Your task to perform on an android device: Show the shopping cart on bestbuy. Add "rayovac triple a" to the cart on bestbuy Image 0: 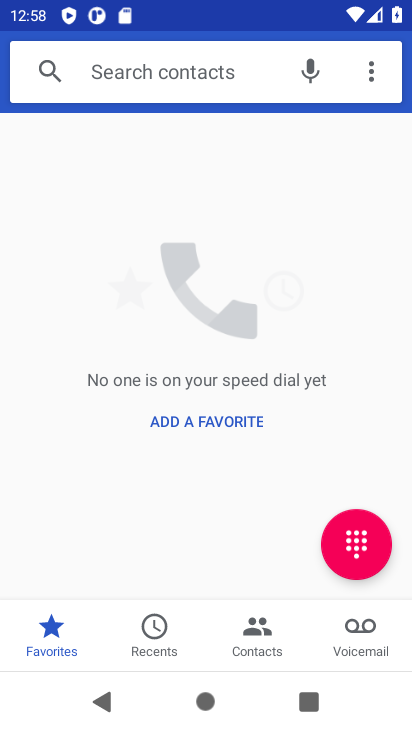
Step 0: press home button
Your task to perform on an android device: Show the shopping cart on bestbuy. Add "rayovac triple a" to the cart on bestbuy Image 1: 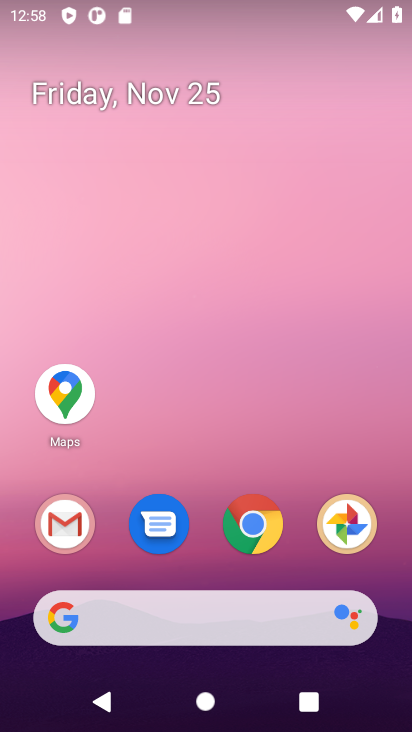
Step 1: click (258, 524)
Your task to perform on an android device: Show the shopping cart on bestbuy. Add "rayovac triple a" to the cart on bestbuy Image 2: 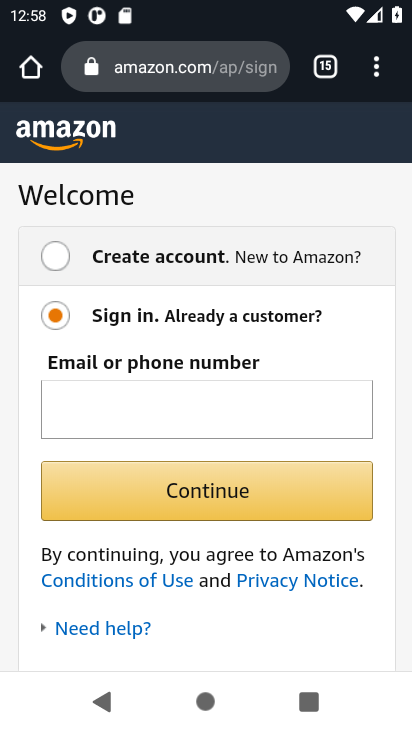
Step 2: click (155, 64)
Your task to perform on an android device: Show the shopping cart on bestbuy. Add "rayovac triple a" to the cart on bestbuy Image 3: 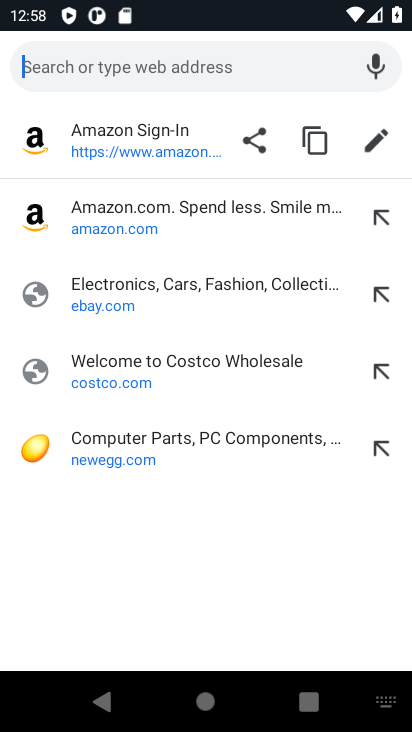
Step 3: type "bestbuy.com"
Your task to perform on an android device: Show the shopping cart on bestbuy. Add "rayovac triple a" to the cart on bestbuy Image 4: 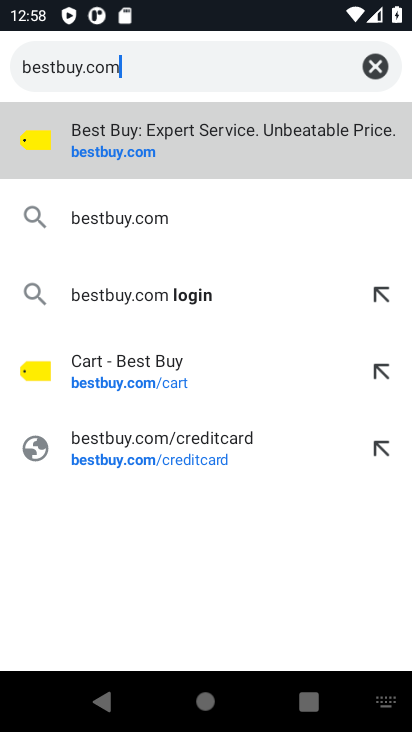
Step 4: click (108, 153)
Your task to perform on an android device: Show the shopping cart on bestbuy. Add "rayovac triple a" to the cart on bestbuy Image 5: 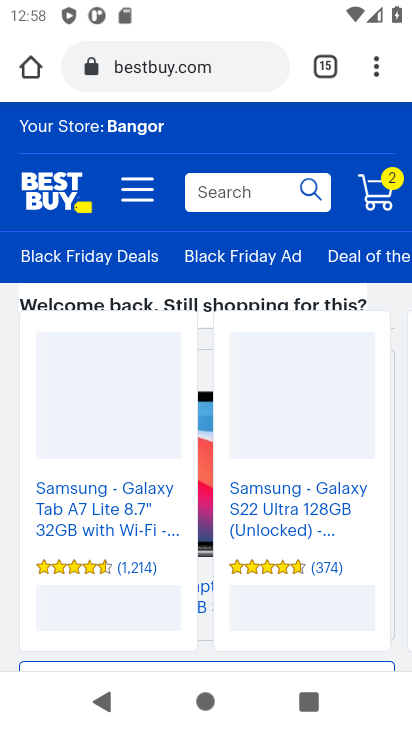
Step 5: click (381, 190)
Your task to perform on an android device: Show the shopping cart on bestbuy. Add "rayovac triple a" to the cart on bestbuy Image 6: 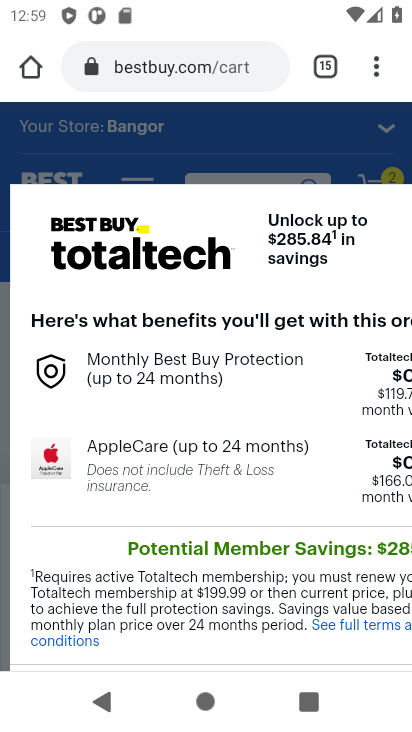
Step 6: drag from (352, 290) to (256, 291)
Your task to perform on an android device: Show the shopping cart on bestbuy. Add "rayovac triple a" to the cart on bestbuy Image 7: 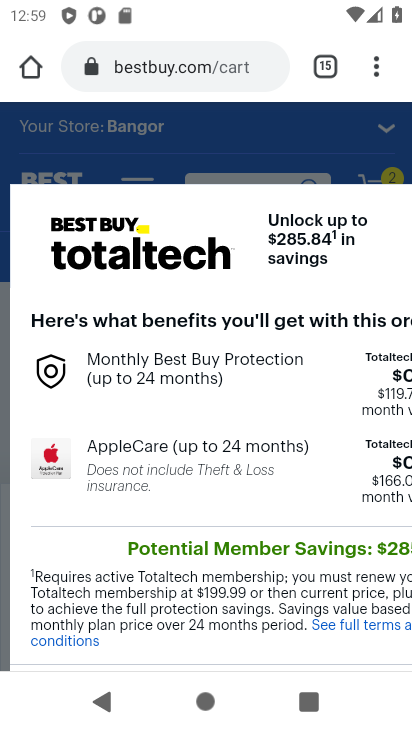
Step 7: click (323, 154)
Your task to perform on an android device: Show the shopping cart on bestbuy. Add "rayovac triple a" to the cart on bestbuy Image 8: 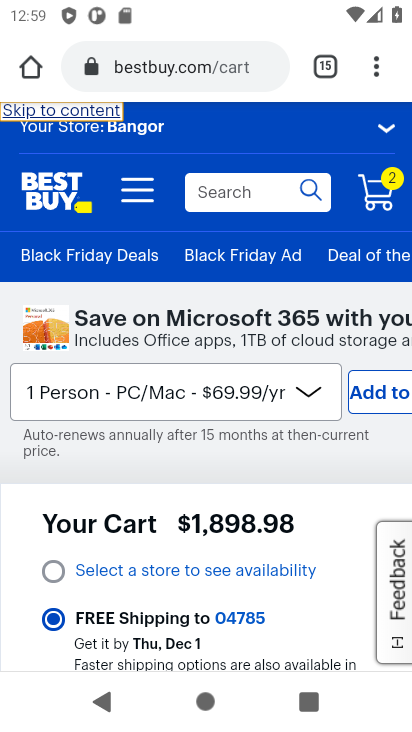
Step 8: drag from (281, 455) to (286, 280)
Your task to perform on an android device: Show the shopping cart on bestbuy. Add "rayovac triple a" to the cart on bestbuy Image 9: 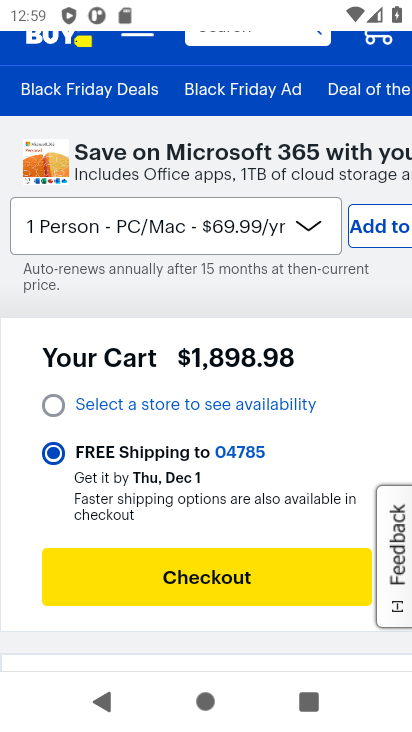
Step 9: drag from (321, 349) to (319, 504)
Your task to perform on an android device: Show the shopping cart on bestbuy. Add "rayovac triple a" to the cart on bestbuy Image 10: 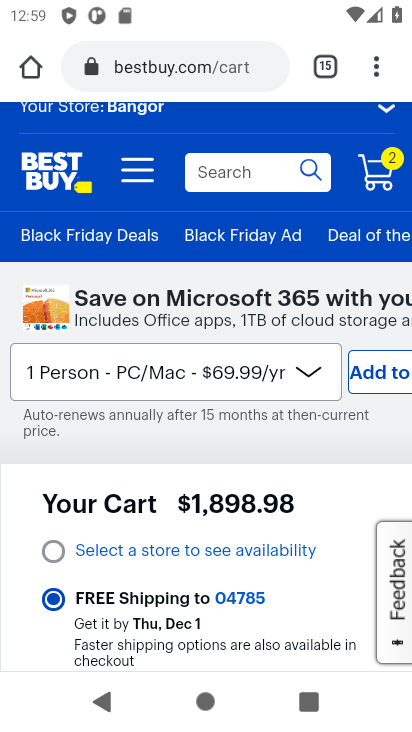
Step 10: click (211, 172)
Your task to perform on an android device: Show the shopping cart on bestbuy. Add "rayovac triple a" to the cart on bestbuy Image 11: 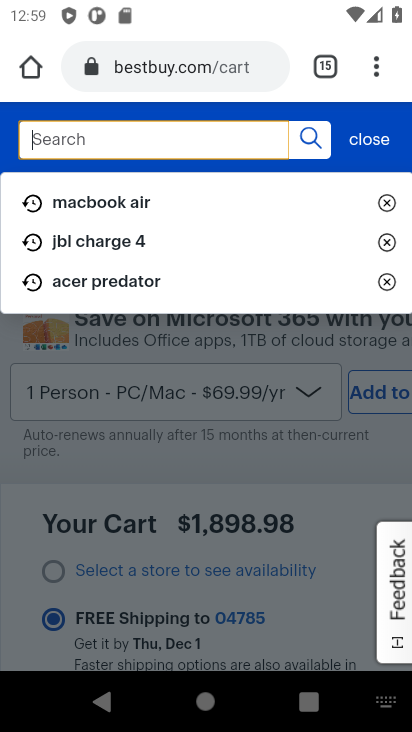
Step 11: type "rayovac triple a"
Your task to perform on an android device: Show the shopping cart on bestbuy. Add "rayovac triple a" to the cart on bestbuy Image 12: 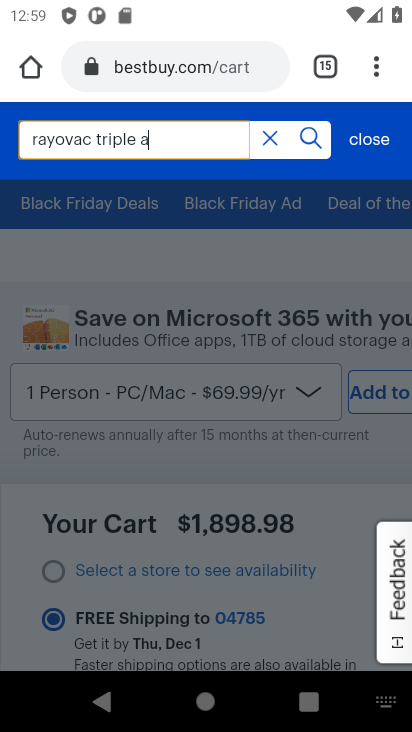
Step 12: click (308, 137)
Your task to perform on an android device: Show the shopping cart on bestbuy. Add "rayovac triple a" to the cart on bestbuy Image 13: 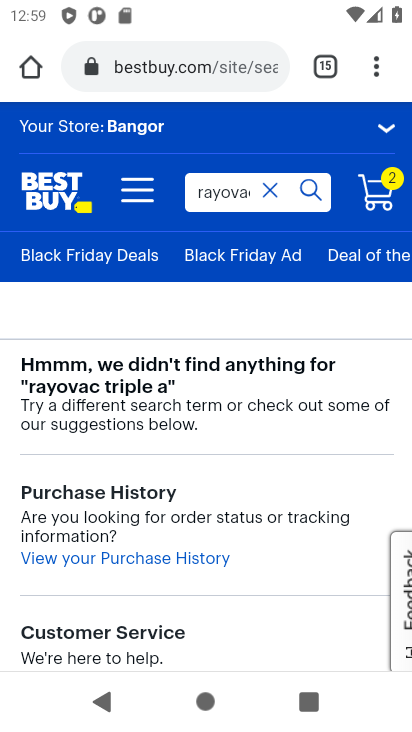
Step 13: task complete